Your task to perform on an android device: Open Google Image 0: 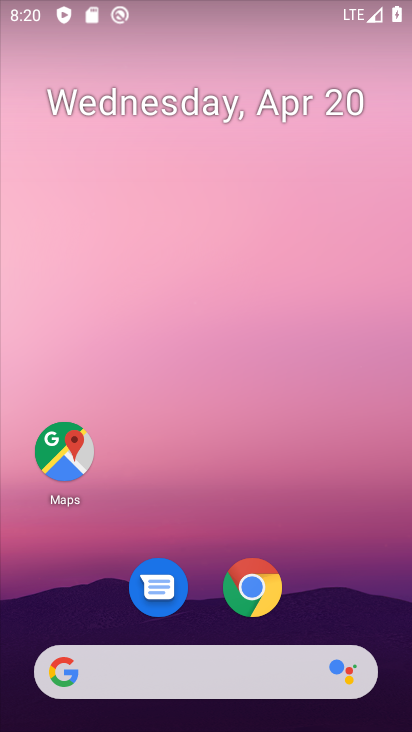
Step 0: drag from (367, 575) to (363, 237)
Your task to perform on an android device: Open Google Image 1: 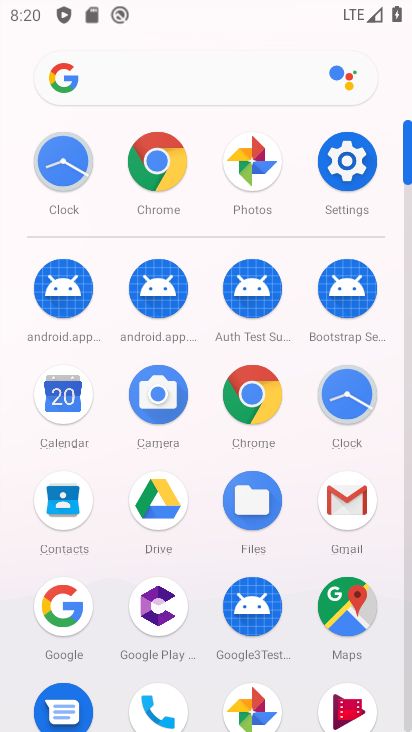
Step 1: click (63, 611)
Your task to perform on an android device: Open Google Image 2: 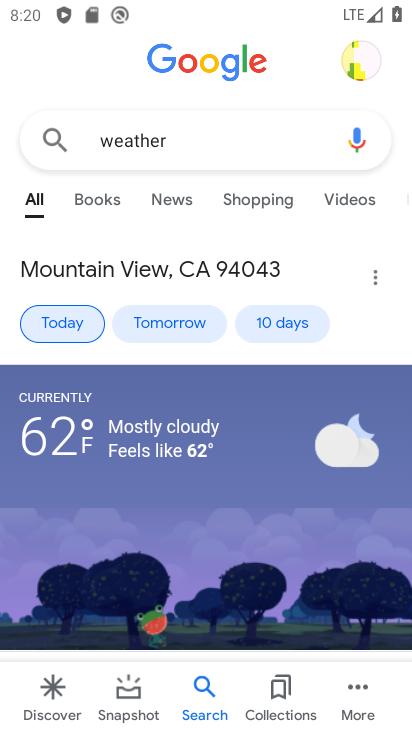
Step 2: task complete